Your task to perform on an android device: turn off notifications in google photos Image 0: 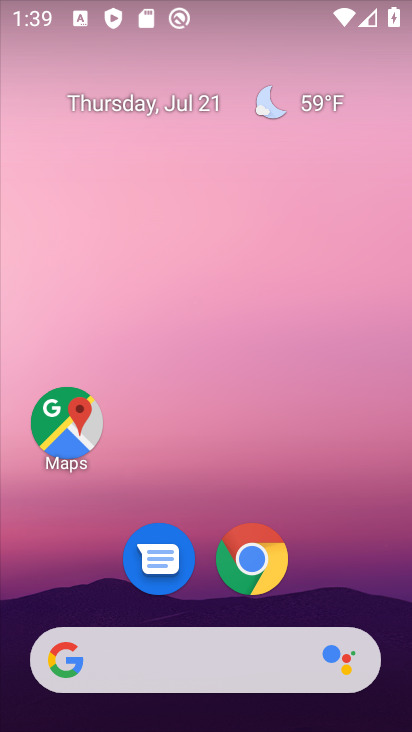
Step 0: drag from (219, 665) to (210, 292)
Your task to perform on an android device: turn off notifications in google photos Image 1: 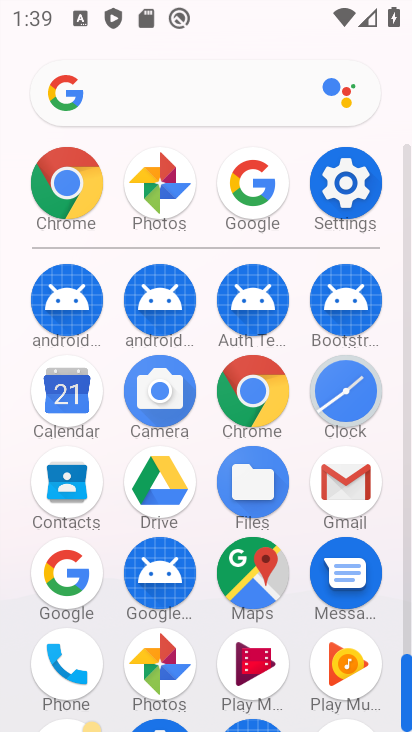
Step 1: click (150, 688)
Your task to perform on an android device: turn off notifications in google photos Image 2: 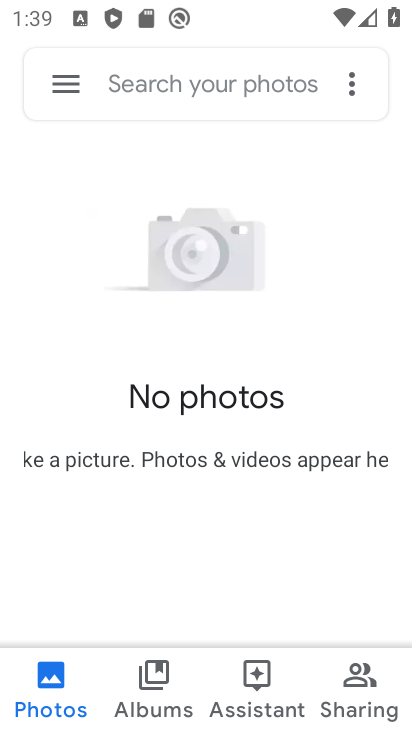
Step 2: click (42, 86)
Your task to perform on an android device: turn off notifications in google photos Image 3: 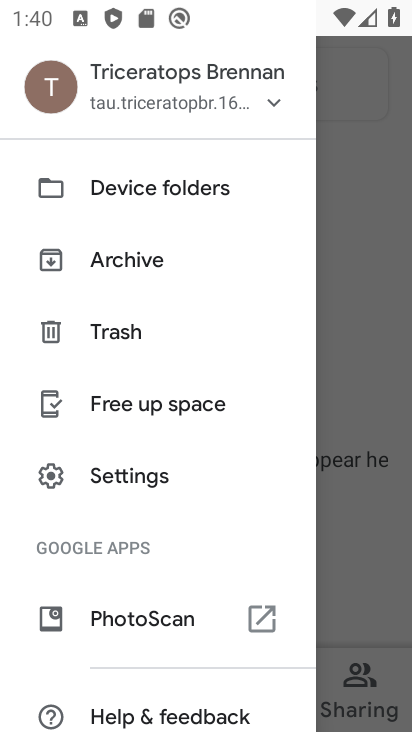
Step 3: drag from (150, 499) to (184, 156)
Your task to perform on an android device: turn off notifications in google photos Image 4: 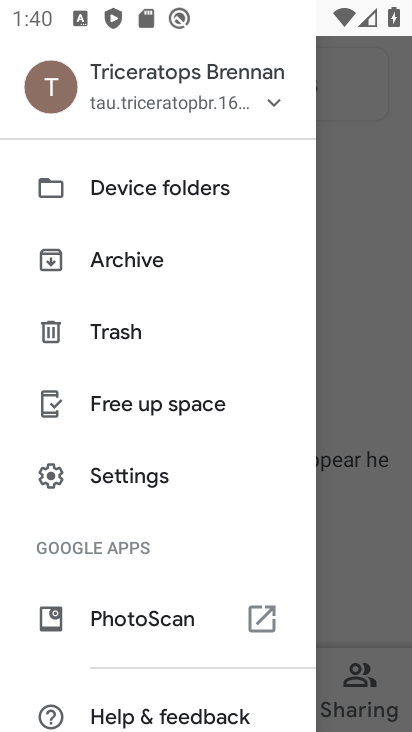
Step 4: click (83, 475)
Your task to perform on an android device: turn off notifications in google photos Image 5: 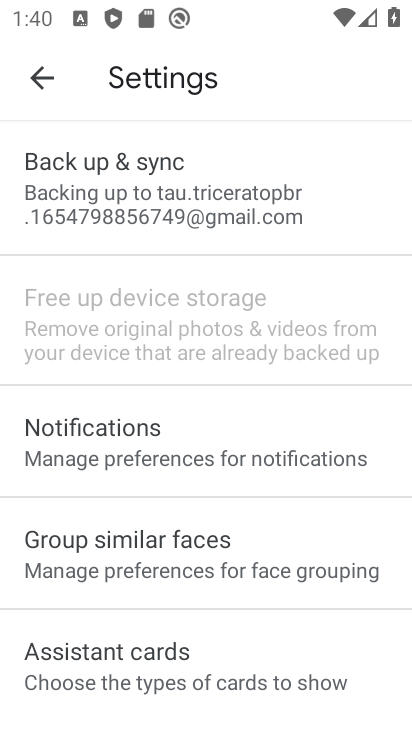
Step 5: click (150, 436)
Your task to perform on an android device: turn off notifications in google photos Image 6: 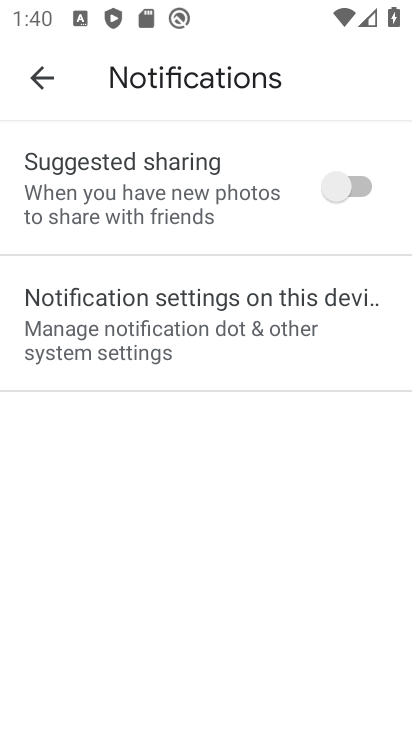
Step 6: click (188, 352)
Your task to perform on an android device: turn off notifications in google photos Image 7: 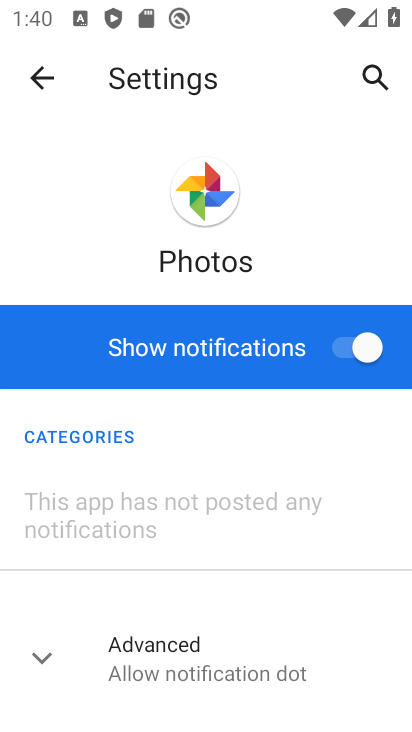
Step 7: click (276, 370)
Your task to perform on an android device: turn off notifications in google photos Image 8: 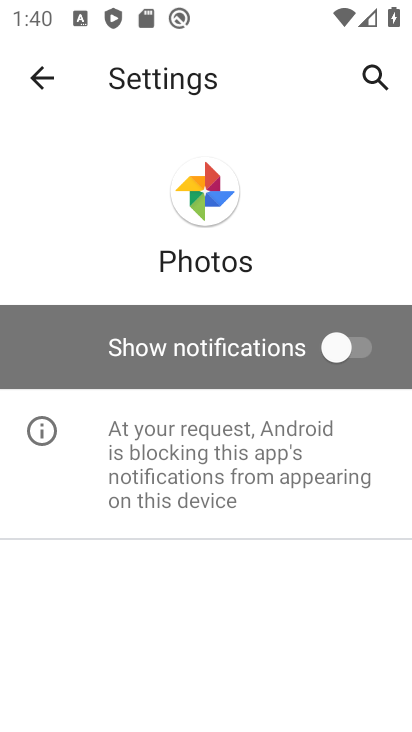
Step 8: task complete